Your task to perform on an android device: move an email to a new category in the gmail app Image 0: 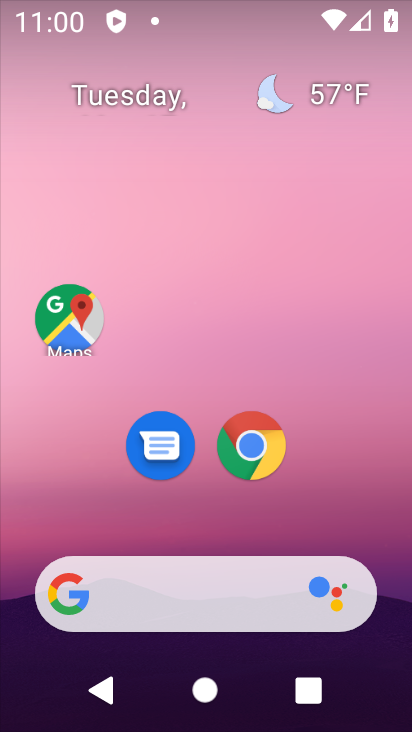
Step 0: drag from (333, 497) to (350, 120)
Your task to perform on an android device: move an email to a new category in the gmail app Image 1: 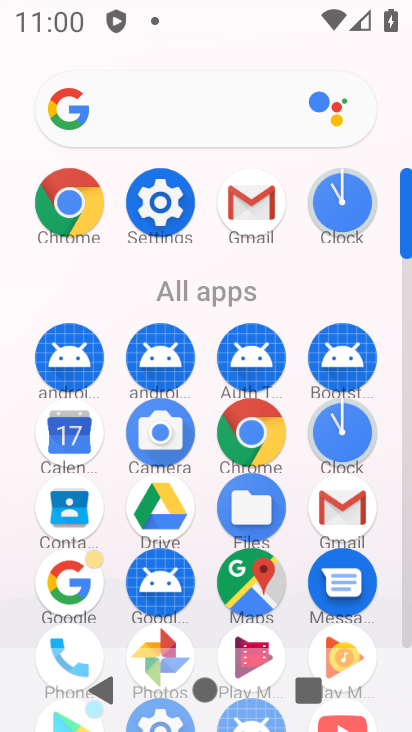
Step 1: click (355, 519)
Your task to perform on an android device: move an email to a new category in the gmail app Image 2: 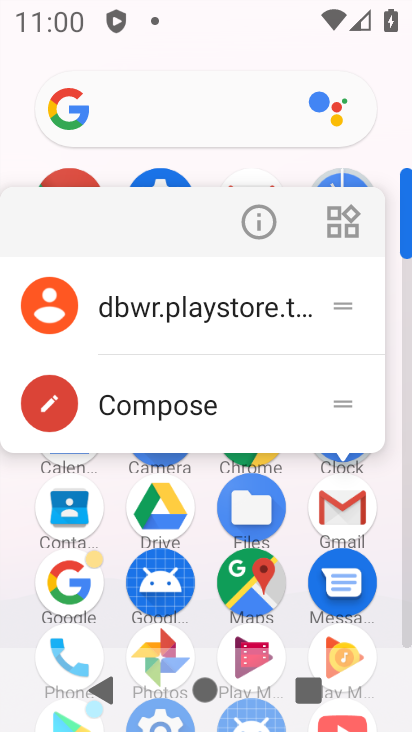
Step 2: click (332, 510)
Your task to perform on an android device: move an email to a new category in the gmail app Image 3: 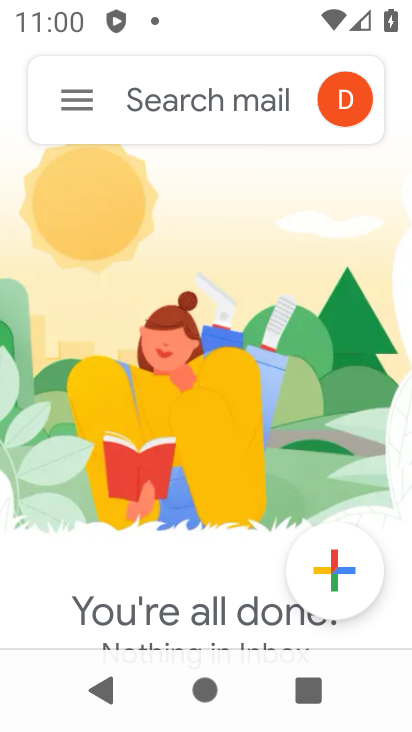
Step 3: click (86, 106)
Your task to perform on an android device: move an email to a new category in the gmail app Image 4: 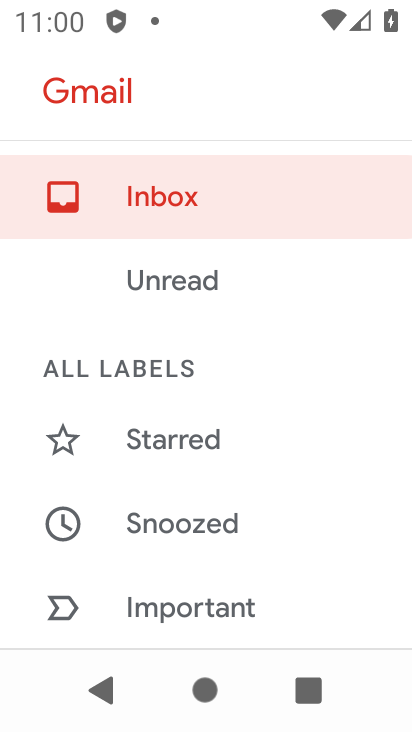
Step 4: drag from (325, 546) to (302, 366)
Your task to perform on an android device: move an email to a new category in the gmail app Image 5: 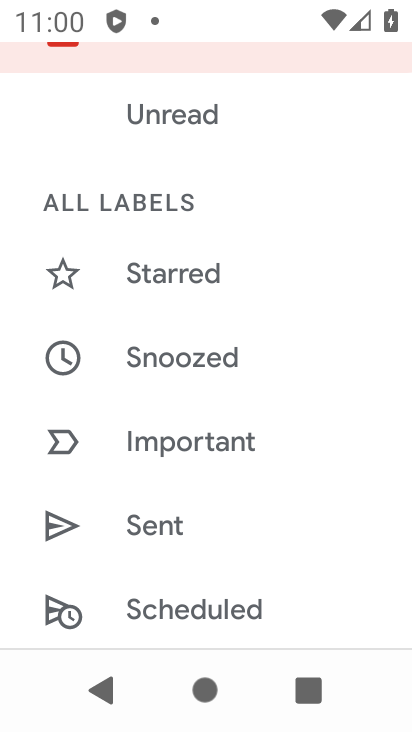
Step 5: drag from (305, 551) to (296, 410)
Your task to perform on an android device: move an email to a new category in the gmail app Image 6: 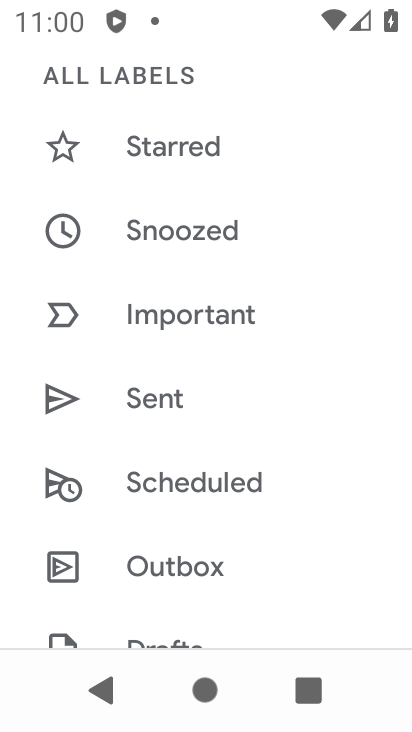
Step 6: drag from (333, 584) to (320, 448)
Your task to perform on an android device: move an email to a new category in the gmail app Image 7: 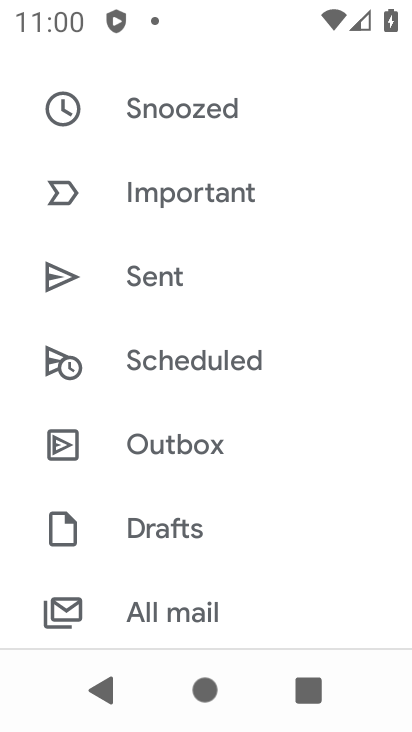
Step 7: drag from (310, 579) to (316, 407)
Your task to perform on an android device: move an email to a new category in the gmail app Image 8: 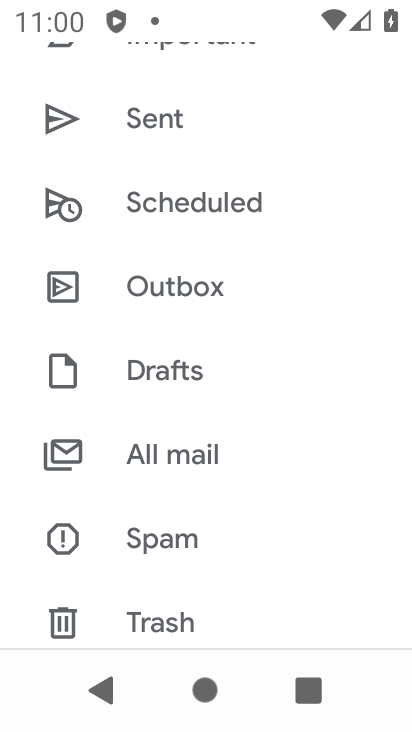
Step 8: drag from (332, 608) to (334, 415)
Your task to perform on an android device: move an email to a new category in the gmail app Image 9: 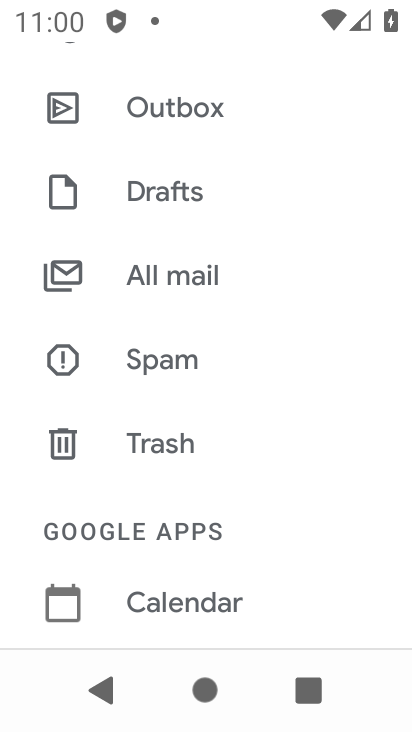
Step 9: drag from (313, 592) to (315, 404)
Your task to perform on an android device: move an email to a new category in the gmail app Image 10: 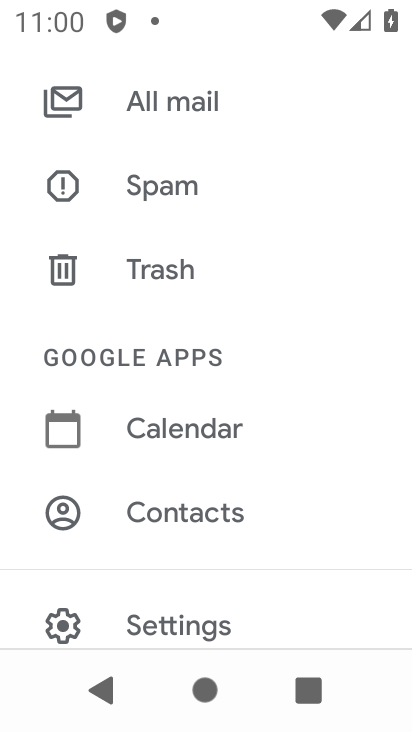
Step 10: drag from (322, 373) to (322, 529)
Your task to perform on an android device: move an email to a new category in the gmail app Image 11: 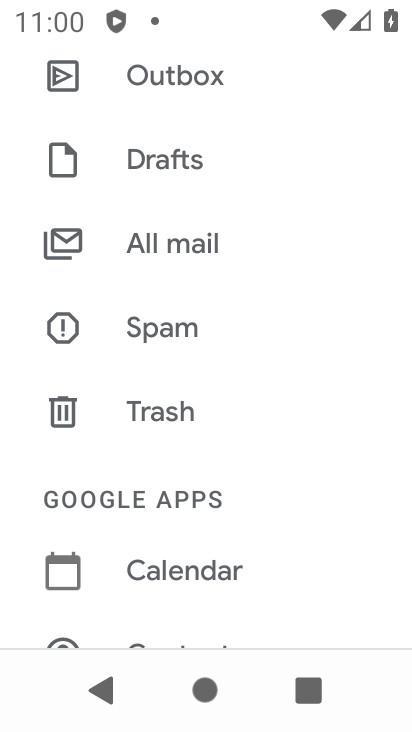
Step 11: drag from (310, 344) to (300, 490)
Your task to perform on an android device: move an email to a new category in the gmail app Image 12: 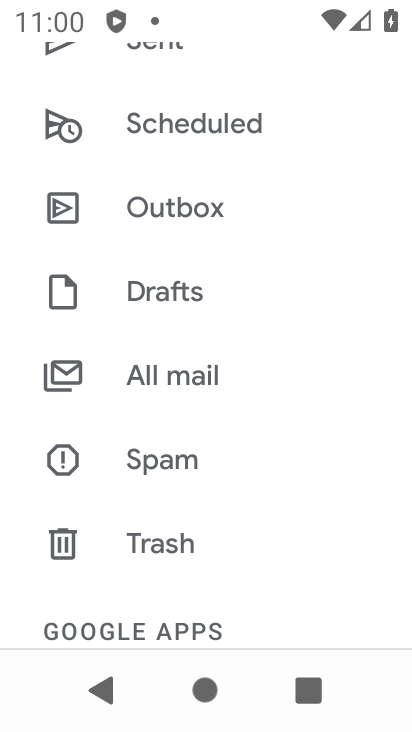
Step 12: drag from (315, 318) to (298, 439)
Your task to perform on an android device: move an email to a new category in the gmail app Image 13: 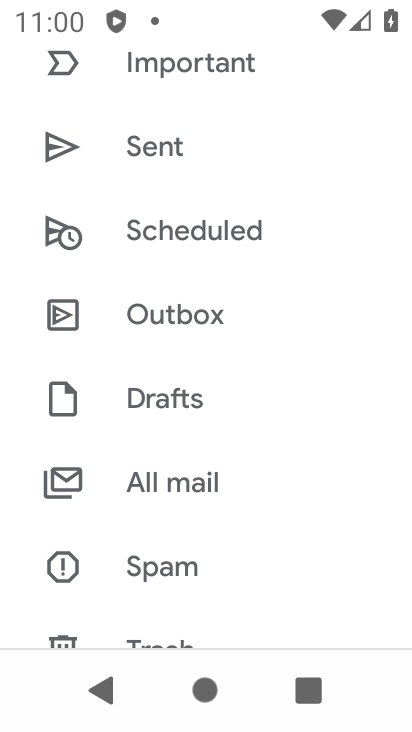
Step 13: drag from (303, 264) to (303, 389)
Your task to perform on an android device: move an email to a new category in the gmail app Image 14: 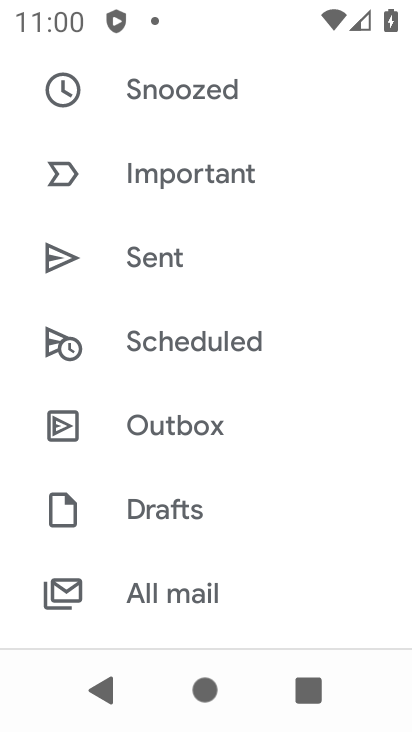
Step 14: drag from (296, 225) to (281, 387)
Your task to perform on an android device: move an email to a new category in the gmail app Image 15: 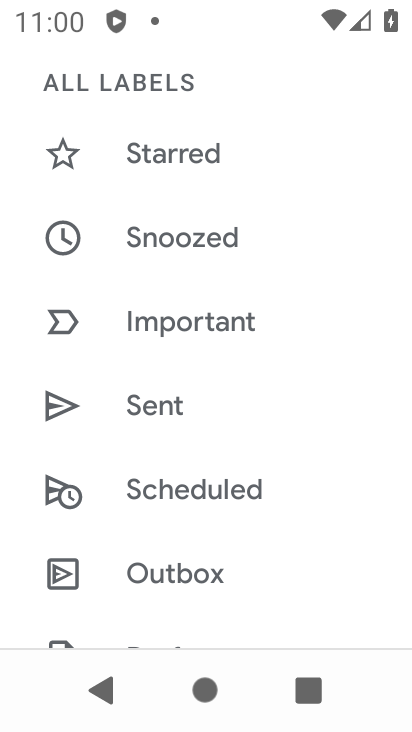
Step 15: drag from (299, 215) to (294, 371)
Your task to perform on an android device: move an email to a new category in the gmail app Image 16: 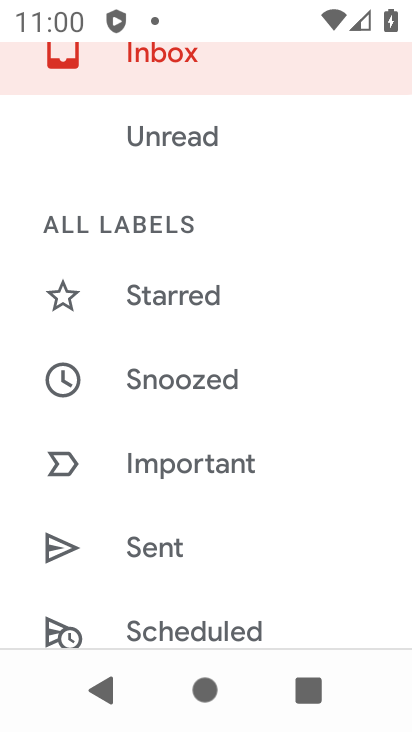
Step 16: drag from (296, 202) to (287, 359)
Your task to perform on an android device: move an email to a new category in the gmail app Image 17: 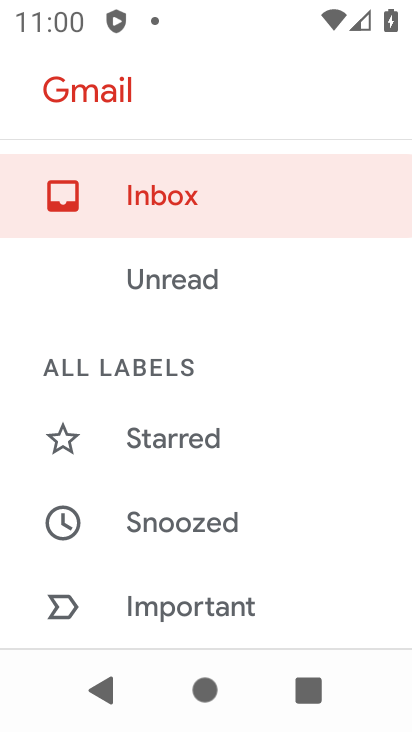
Step 17: click (259, 202)
Your task to perform on an android device: move an email to a new category in the gmail app Image 18: 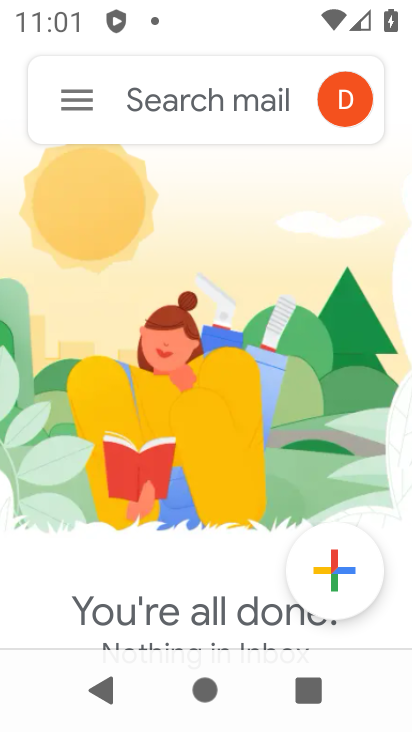
Step 18: task complete